Your task to perform on an android device: read, delete, or share a saved page in the chrome app Image 0: 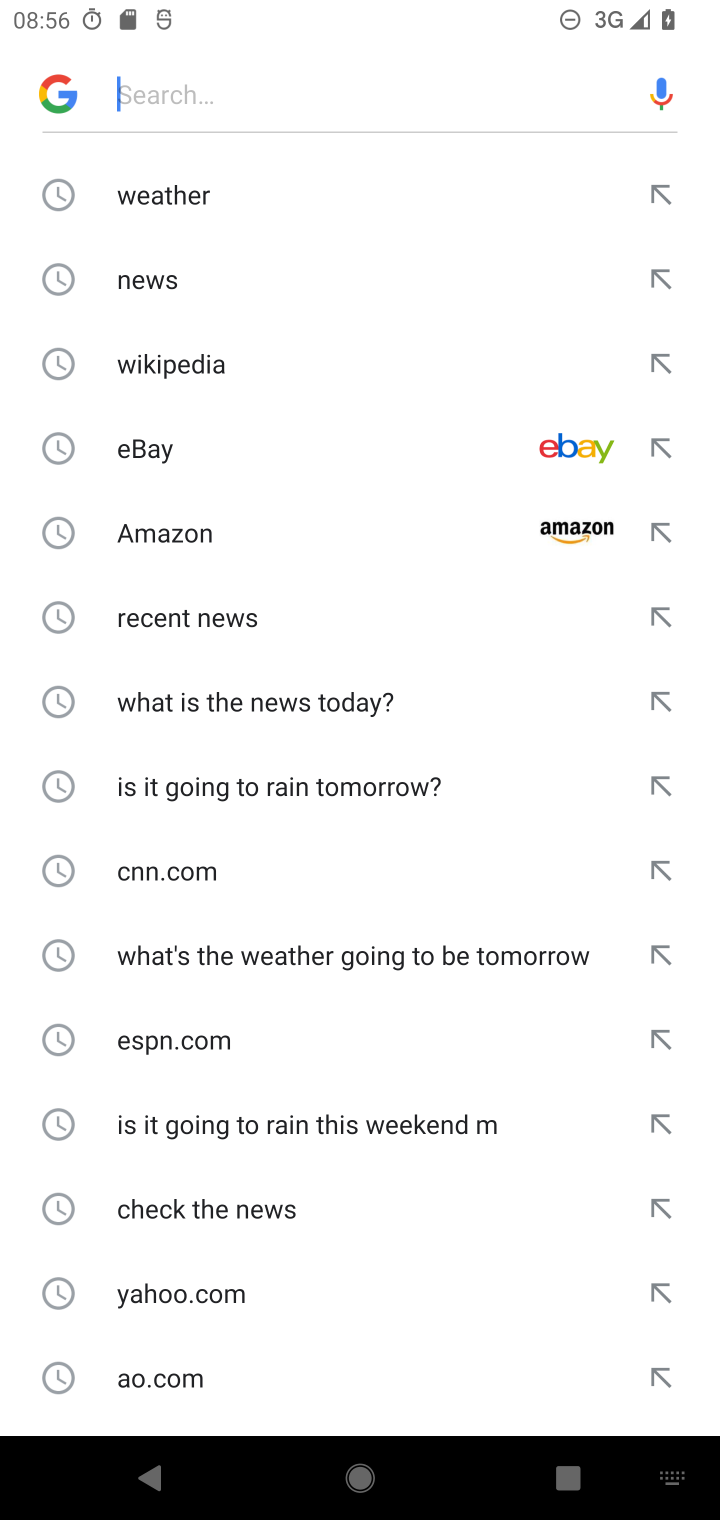
Step 0: press home button
Your task to perform on an android device: read, delete, or share a saved page in the chrome app Image 1: 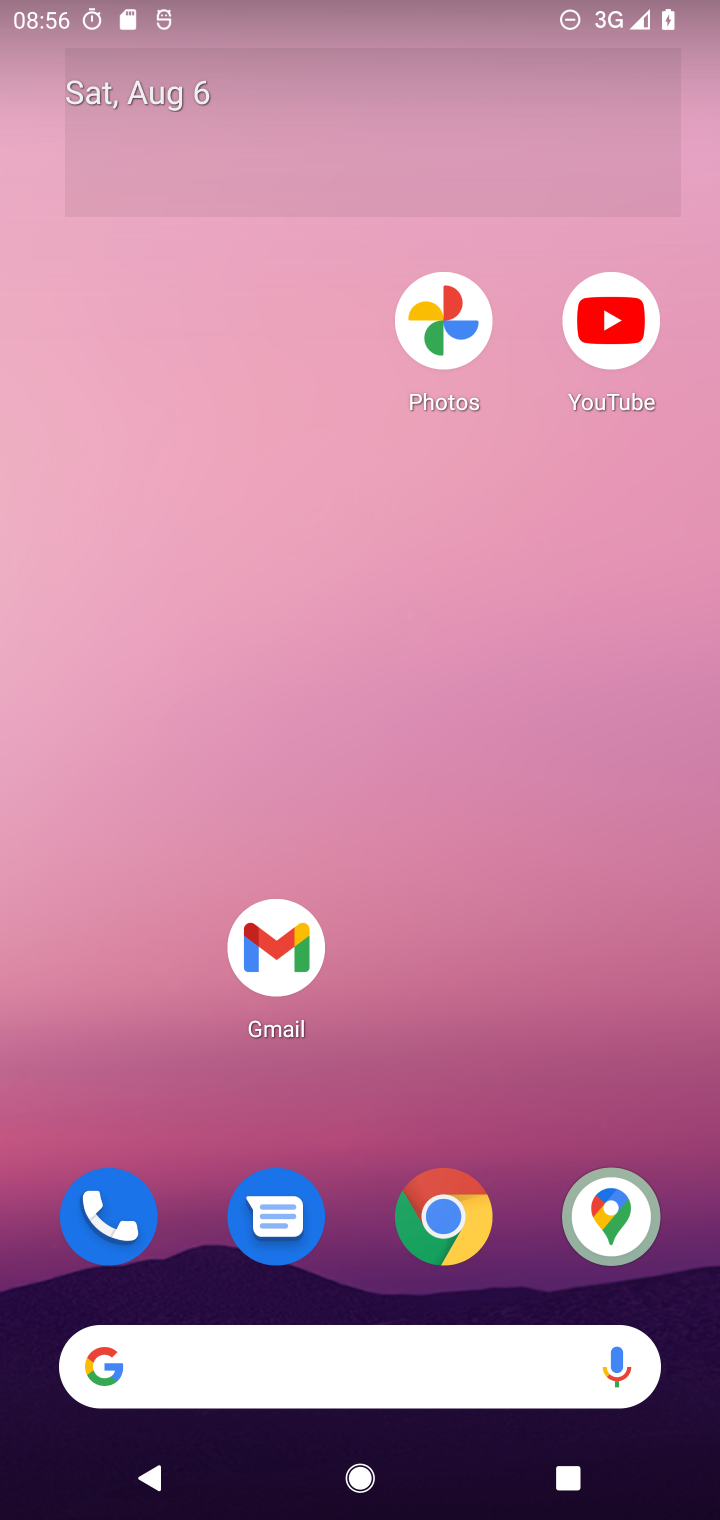
Step 1: drag from (476, 1131) to (493, 130)
Your task to perform on an android device: read, delete, or share a saved page in the chrome app Image 2: 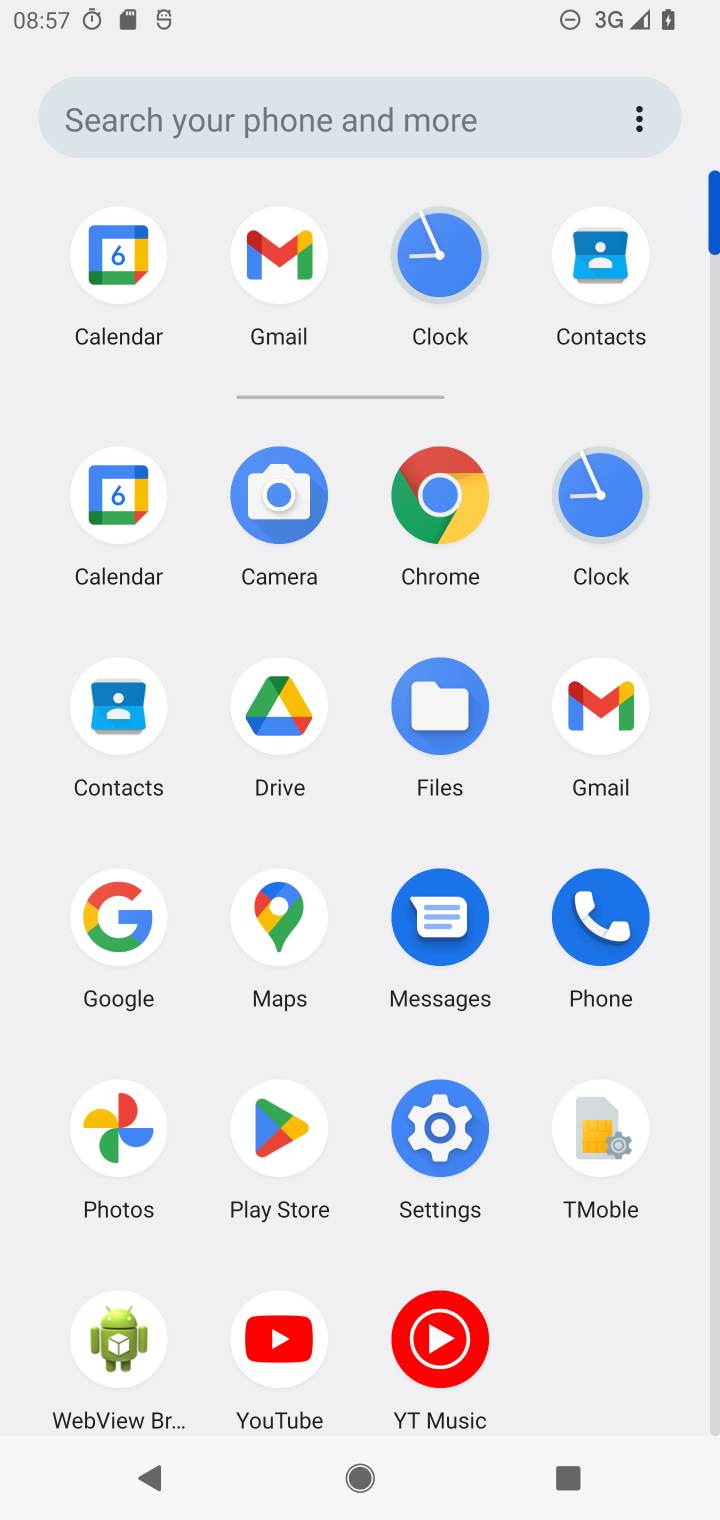
Step 2: click (438, 506)
Your task to perform on an android device: read, delete, or share a saved page in the chrome app Image 3: 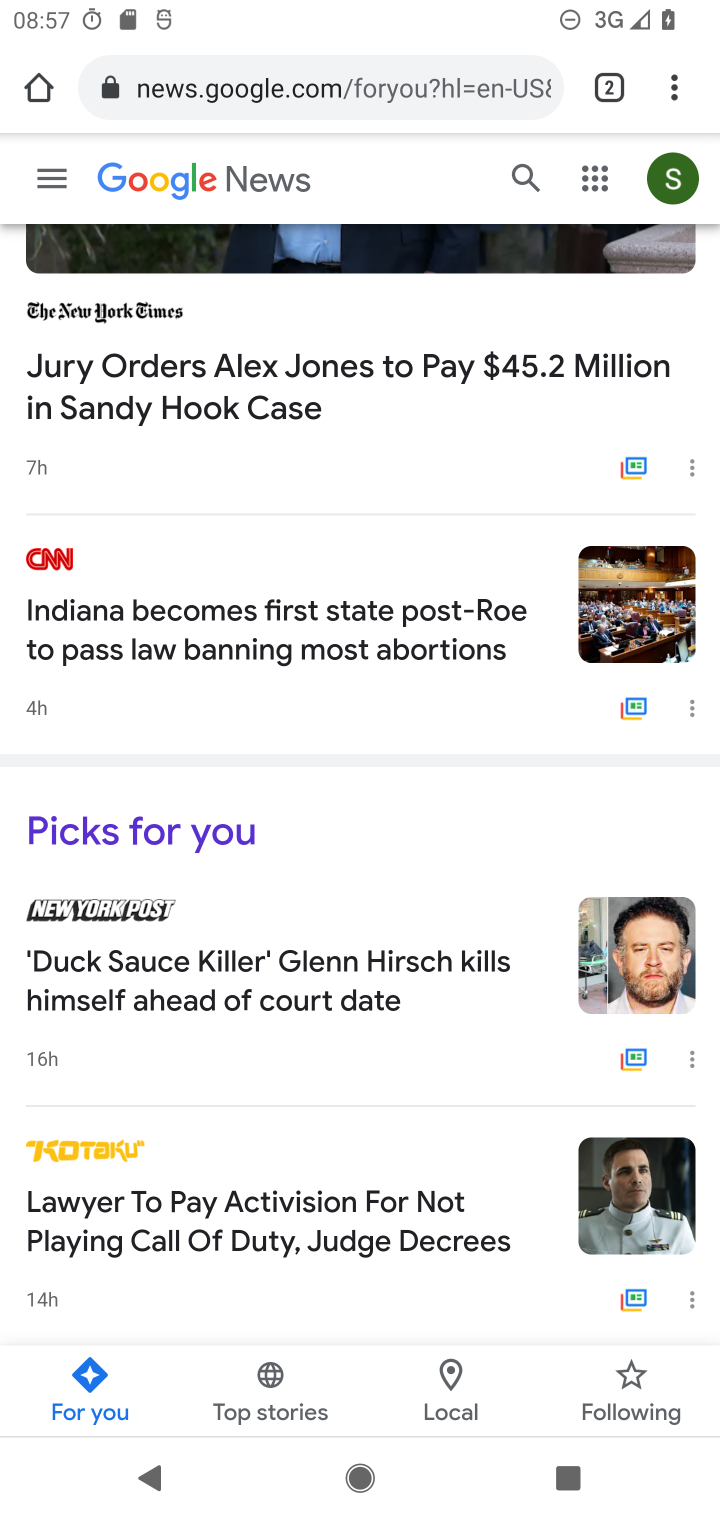
Step 3: drag from (662, 83) to (445, 582)
Your task to perform on an android device: read, delete, or share a saved page in the chrome app Image 4: 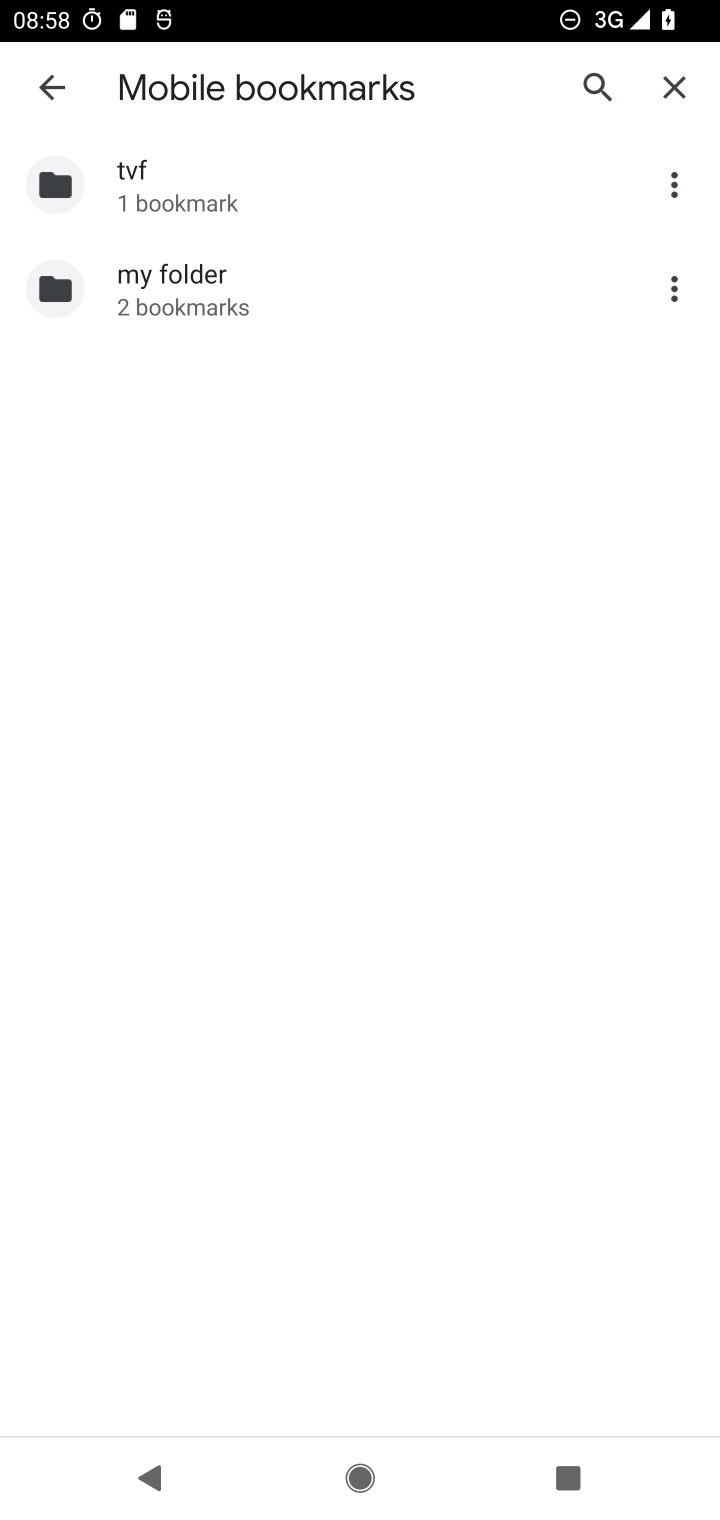
Step 4: click (28, 102)
Your task to perform on an android device: read, delete, or share a saved page in the chrome app Image 5: 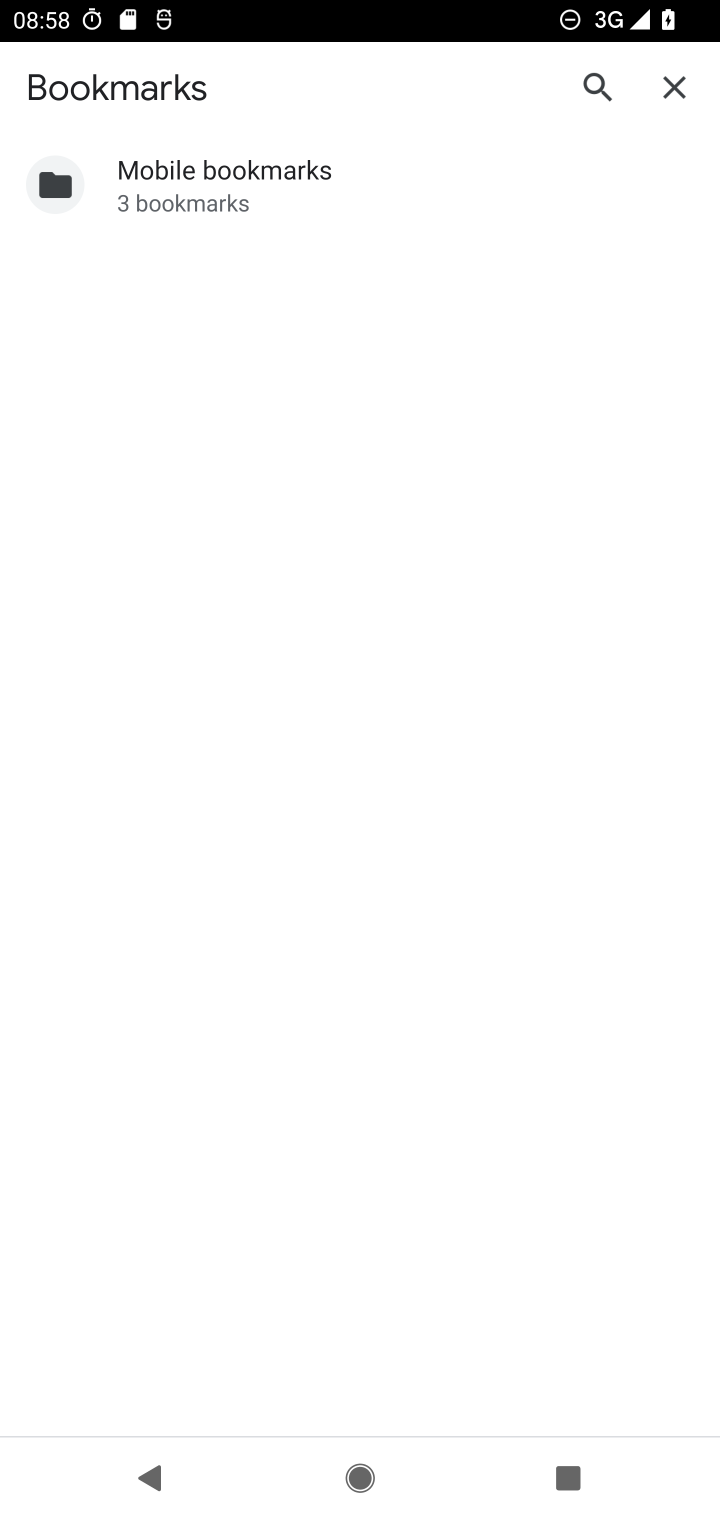
Step 5: click (678, 99)
Your task to perform on an android device: read, delete, or share a saved page in the chrome app Image 6: 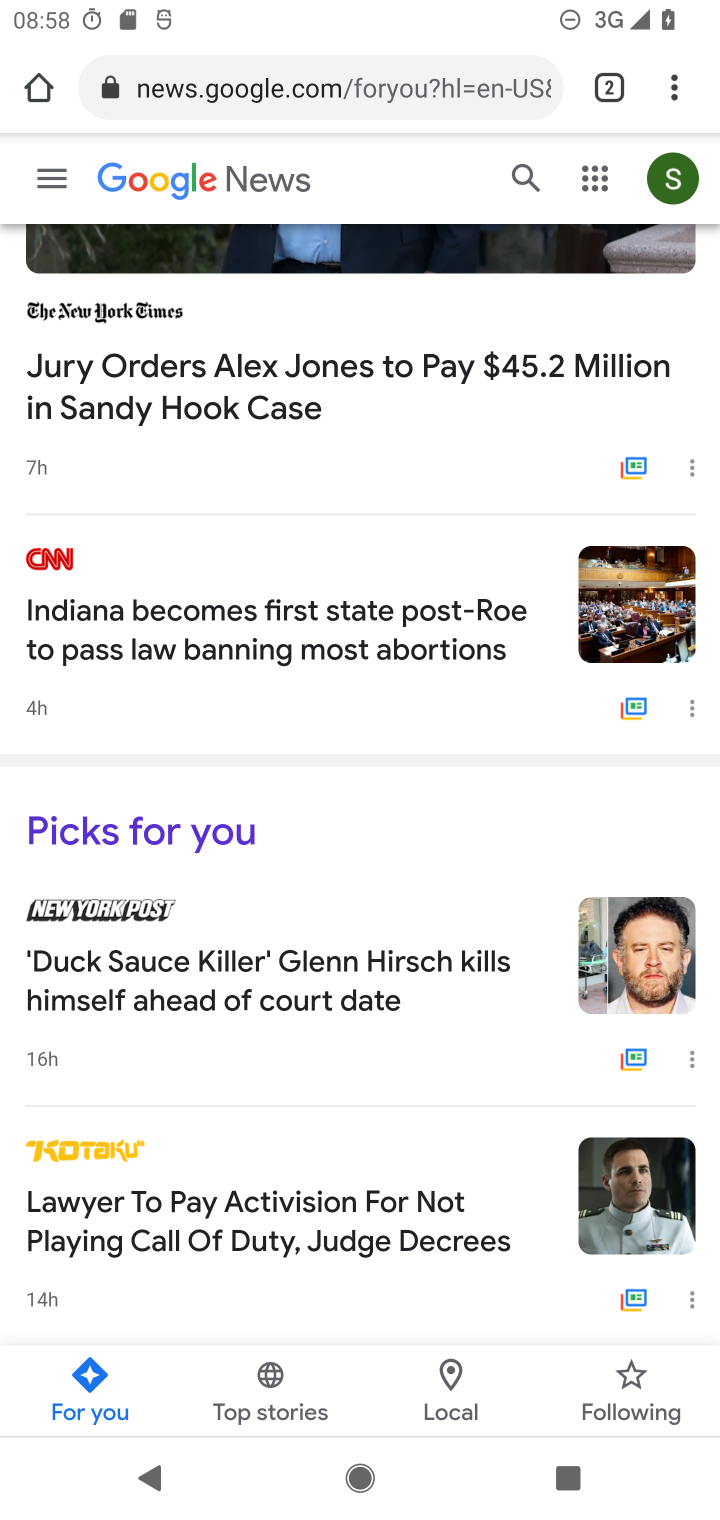
Step 6: task complete